Your task to perform on an android device: Open Wikipedia Image 0: 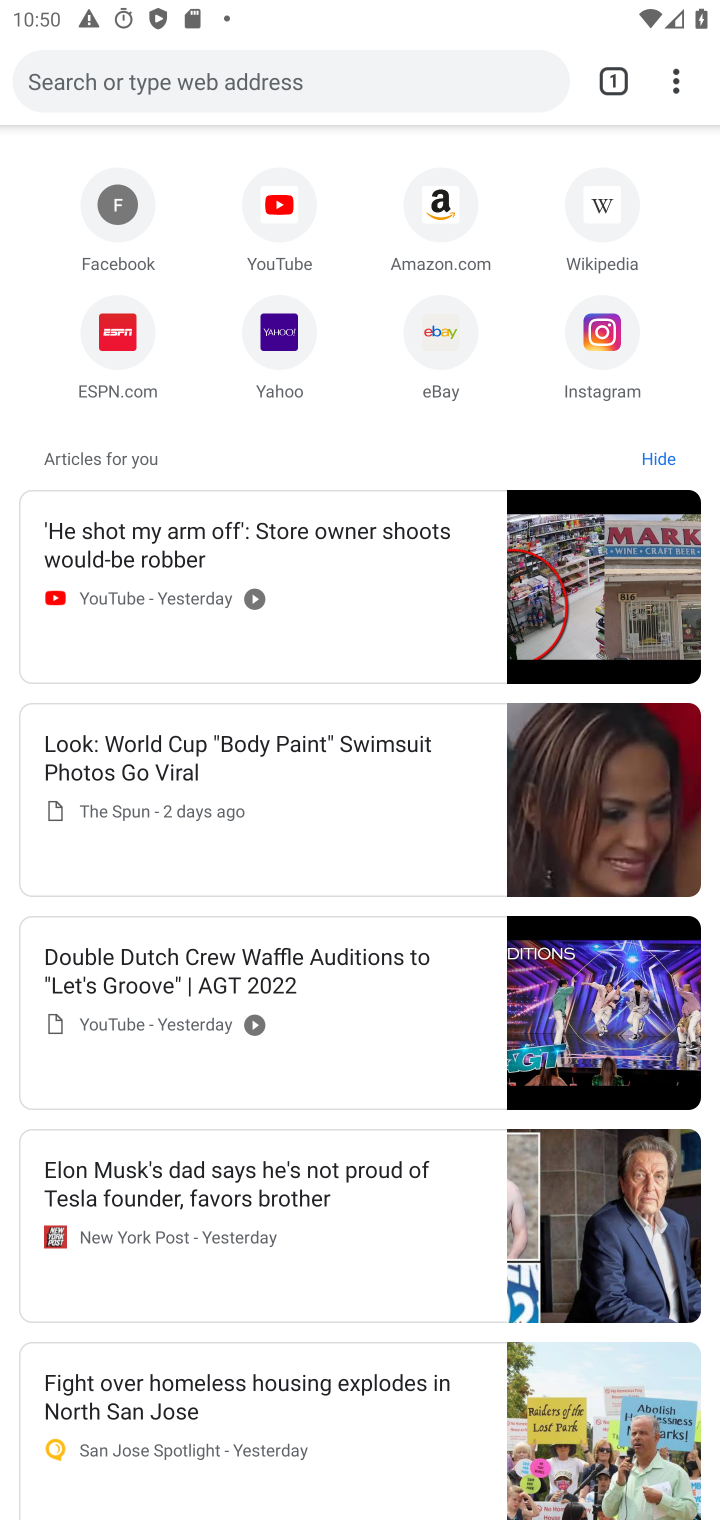
Step 0: press home button
Your task to perform on an android device: Open Wikipedia Image 1: 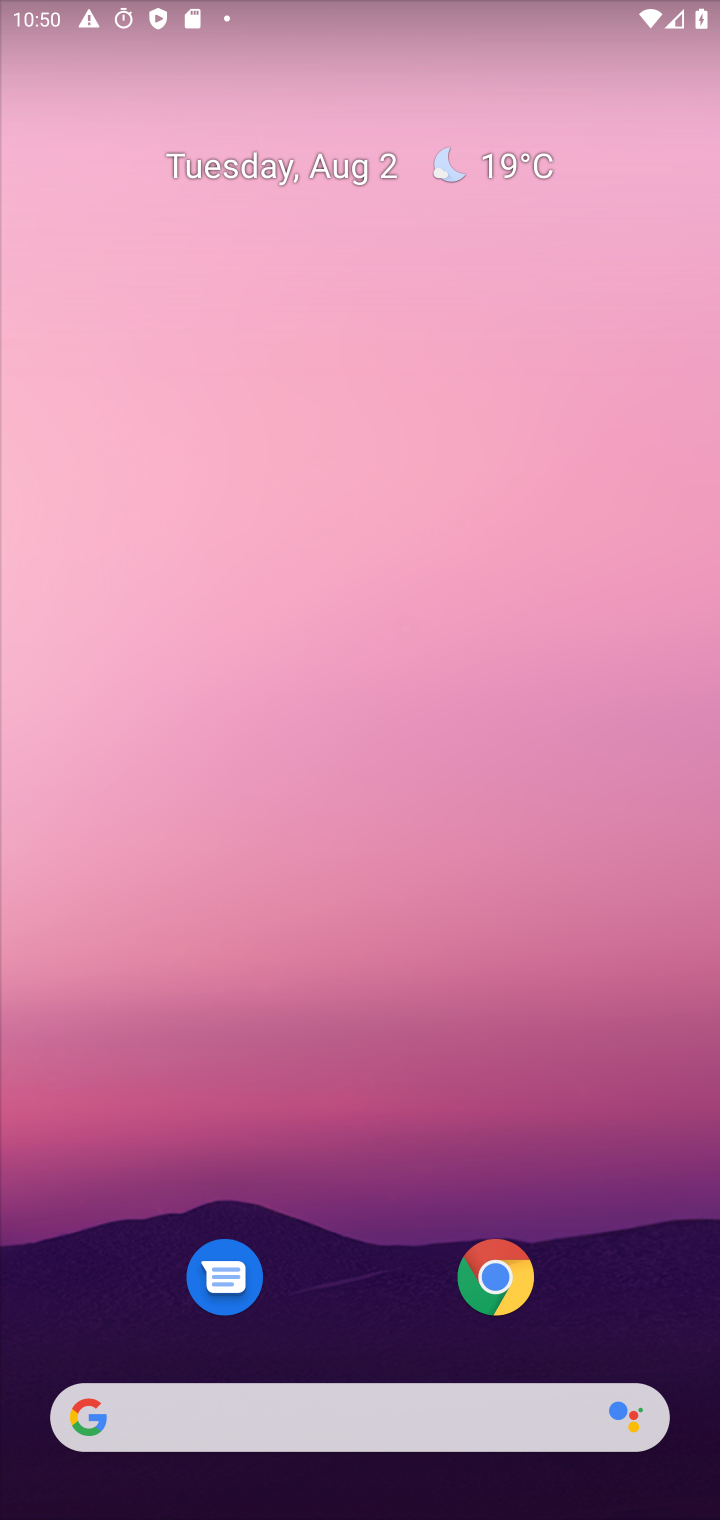
Step 1: click (79, 1420)
Your task to perform on an android device: Open Wikipedia Image 2: 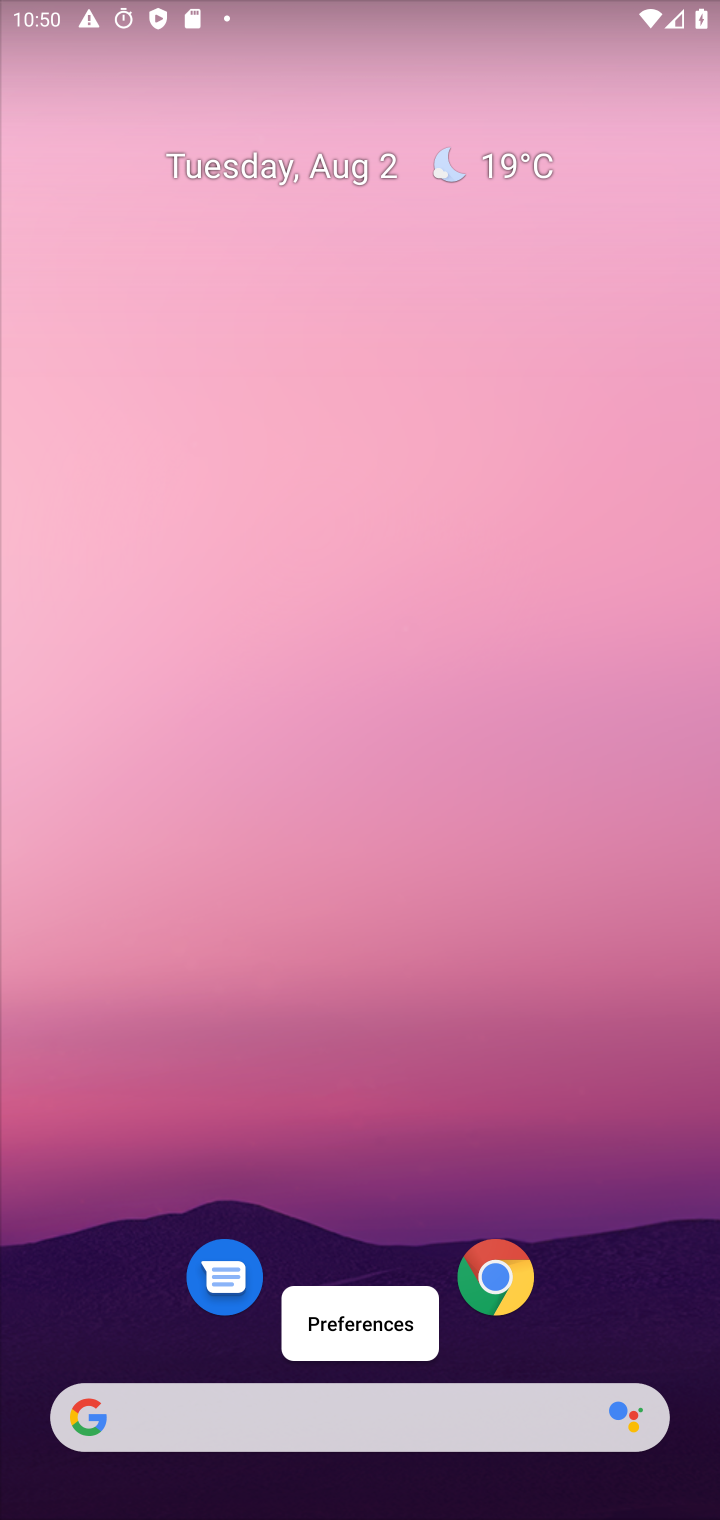
Step 2: click (94, 1412)
Your task to perform on an android device: Open Wikipedia Image 3: 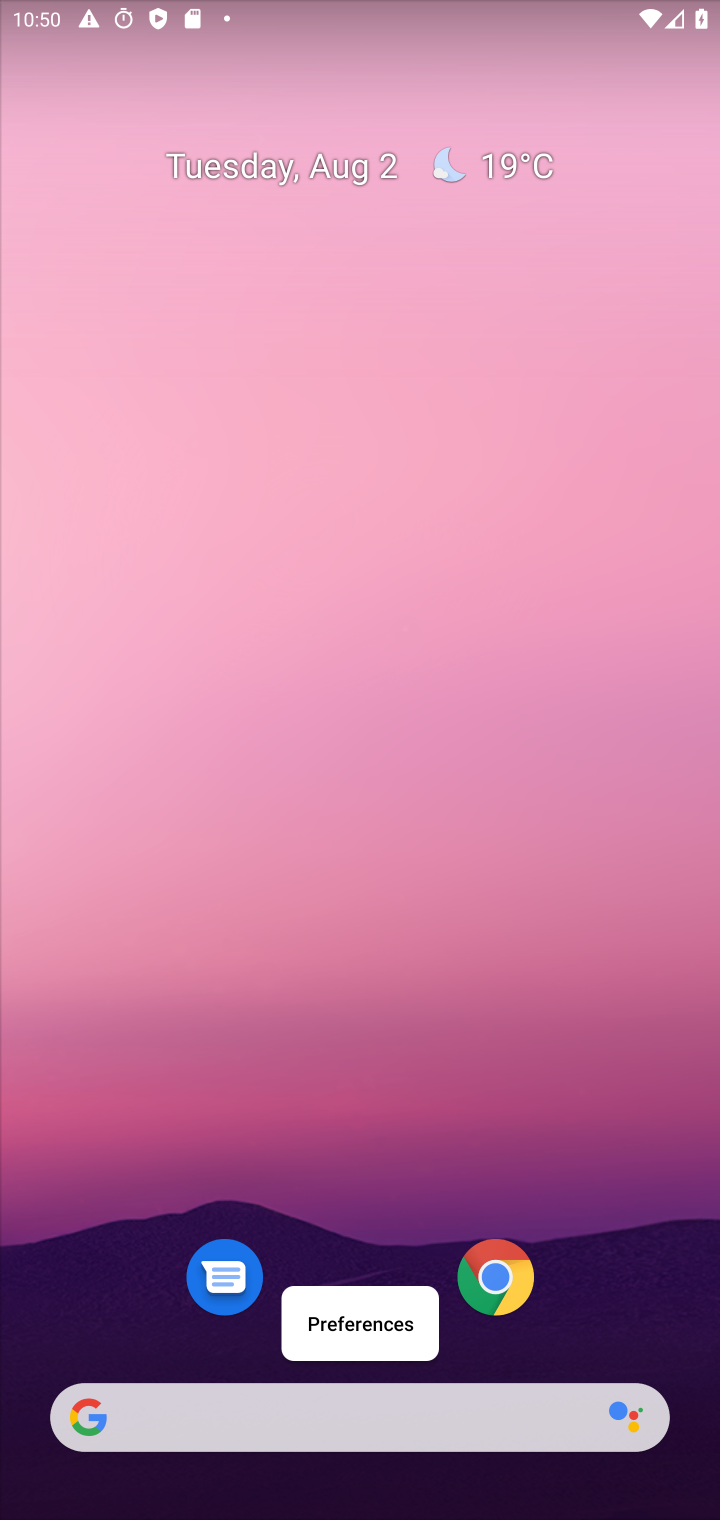
Step 3: click (101, 1423)
Your task to perform on an android device: Open Wikipedia Image 4: 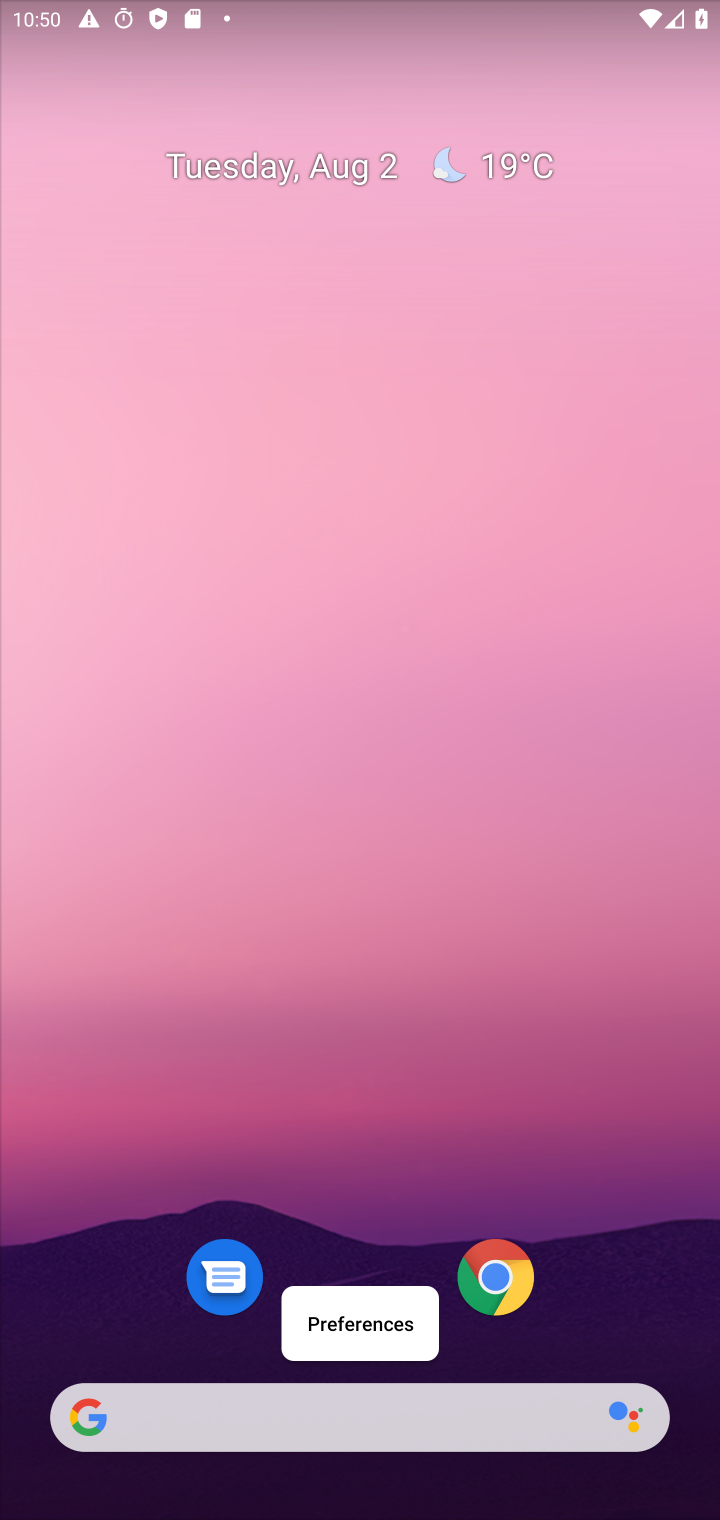
Step 4: click (66, 1398)
Your task to perform on an android device: Open Wikipedia Image 5: 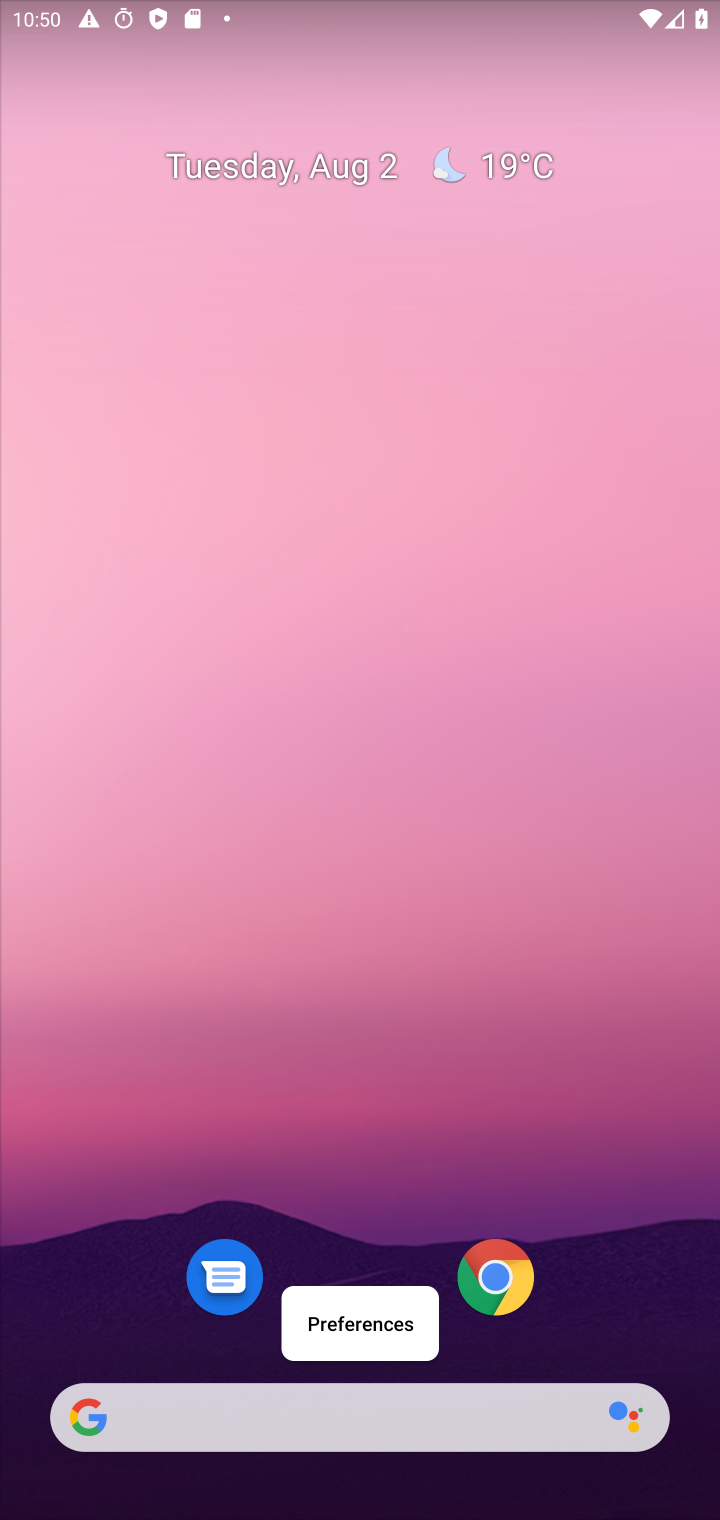
Step 5: click (78, 1405)
Your task to perform on an android device: Open Wikipedia Image 6: 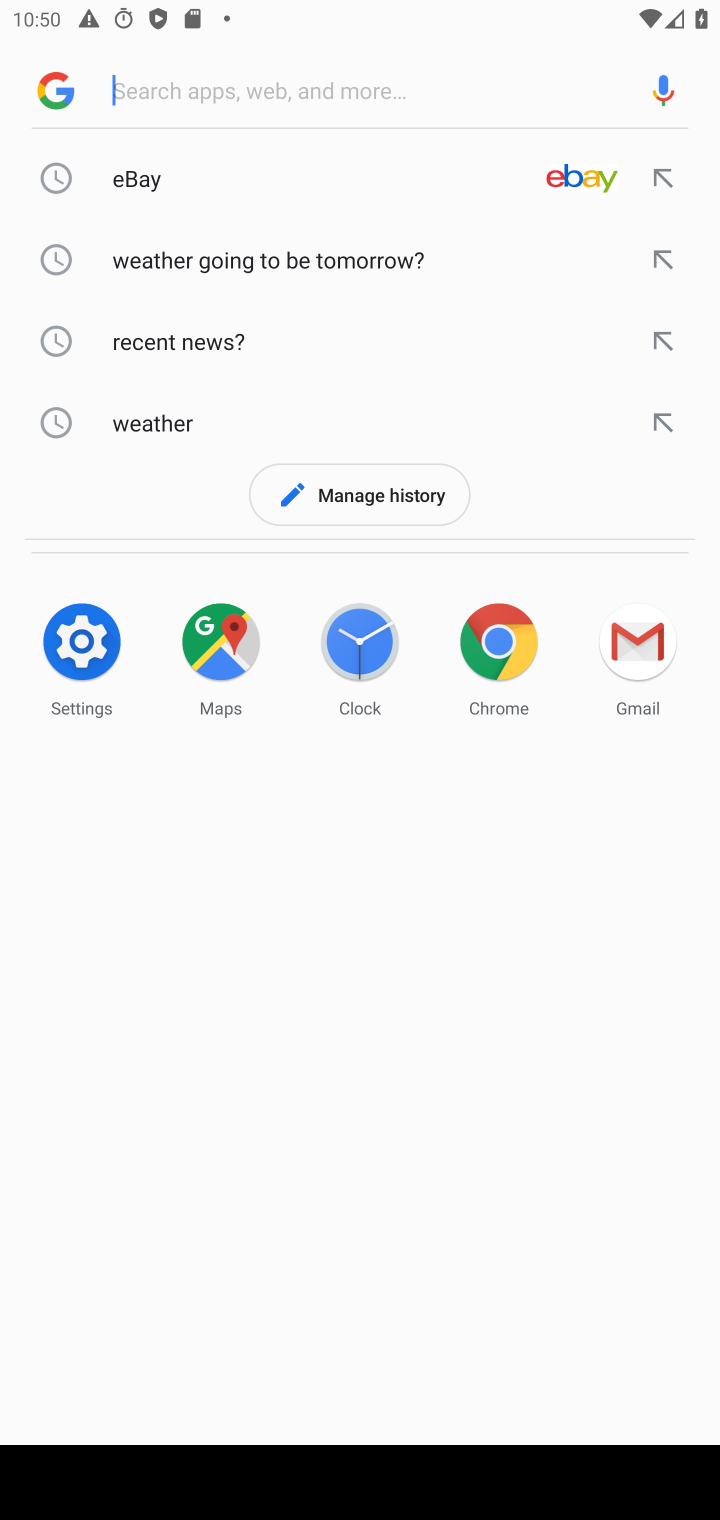
Step 6: type "Wikipedia"
Your task to perform on an android device: Open Wikipedia Image 7: 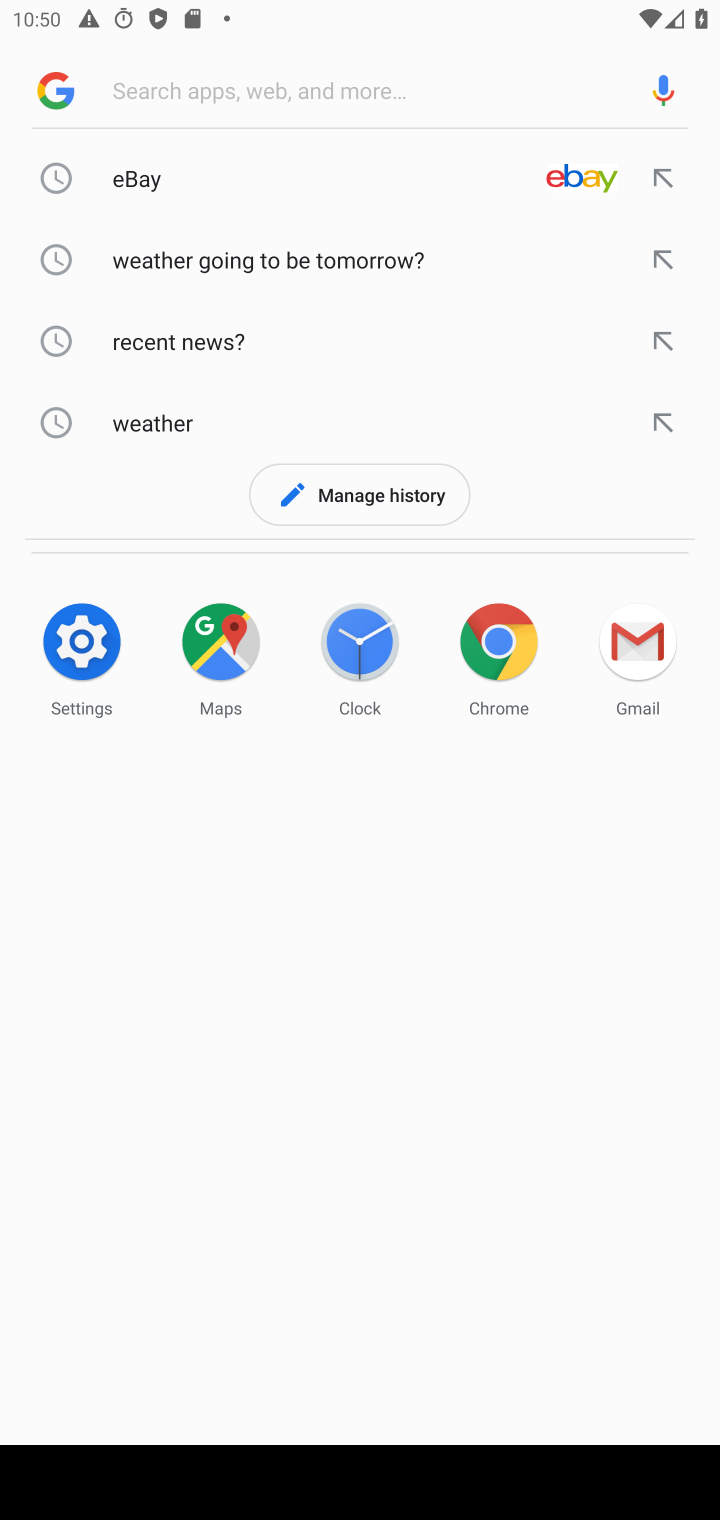
Step 7: click (195, 84)
Your task to perform on an android device: Open Wikipedia Image 8: 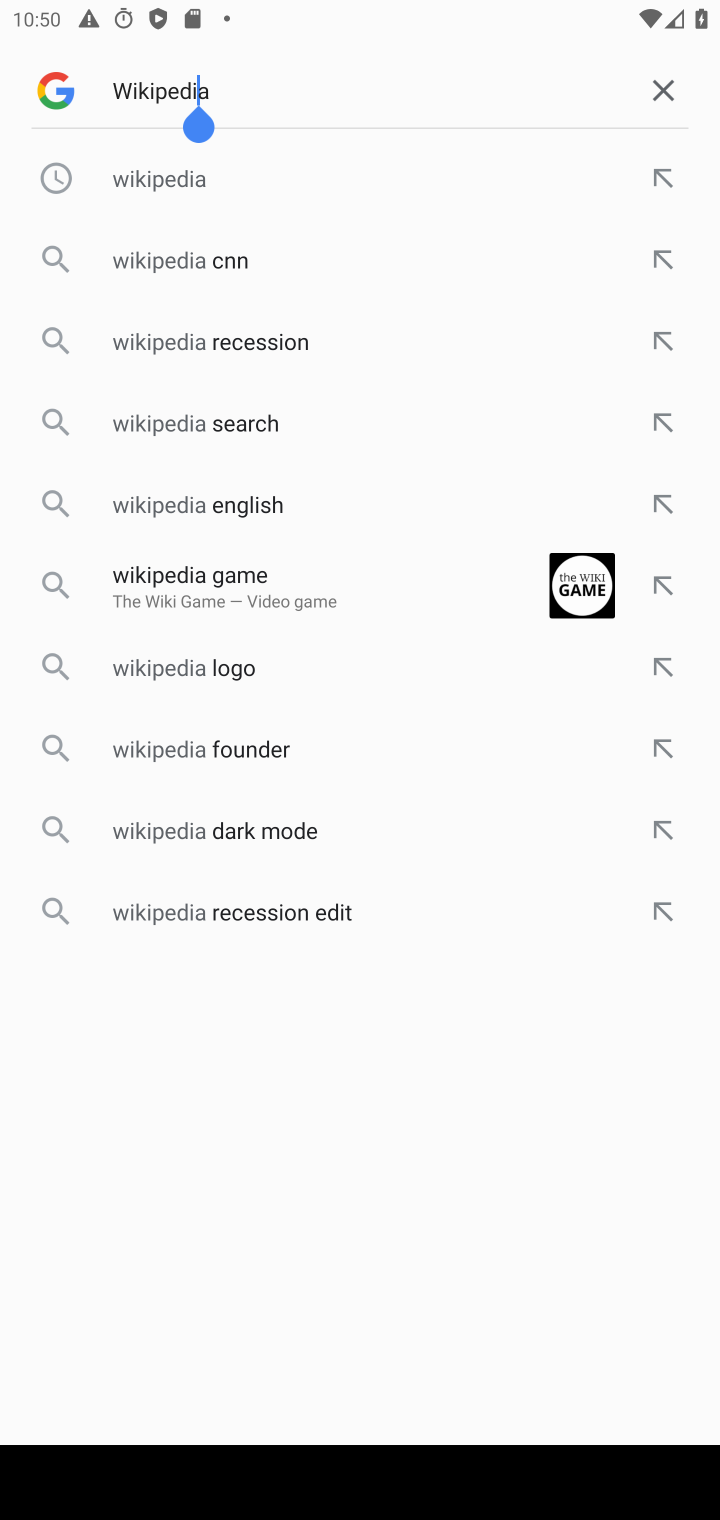
Step 8: click (118, 185)
Your task to perform on an android device: Open Wikipedia Image 9: 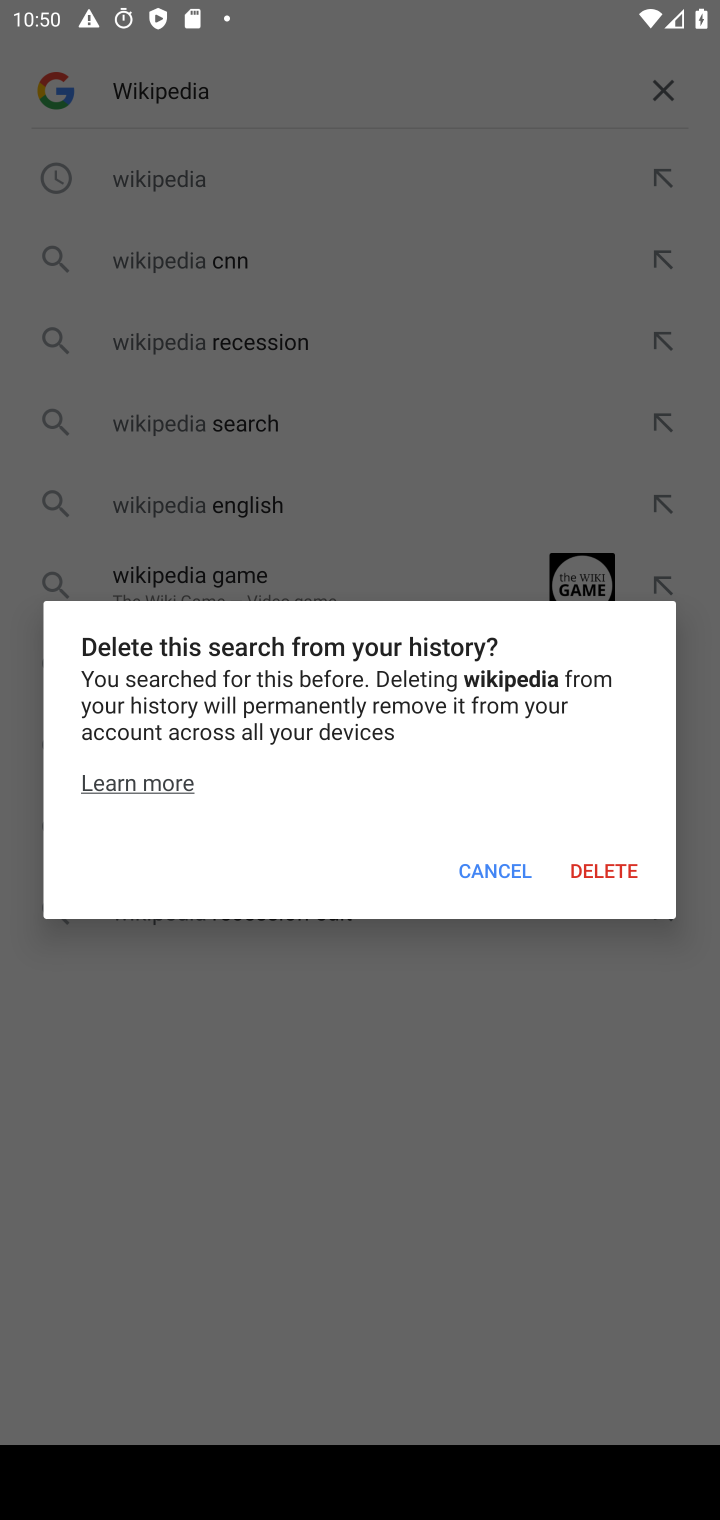
Step 9: click (507, 865)
Your task to perform on an android device: Open Wikipedia Image 10: 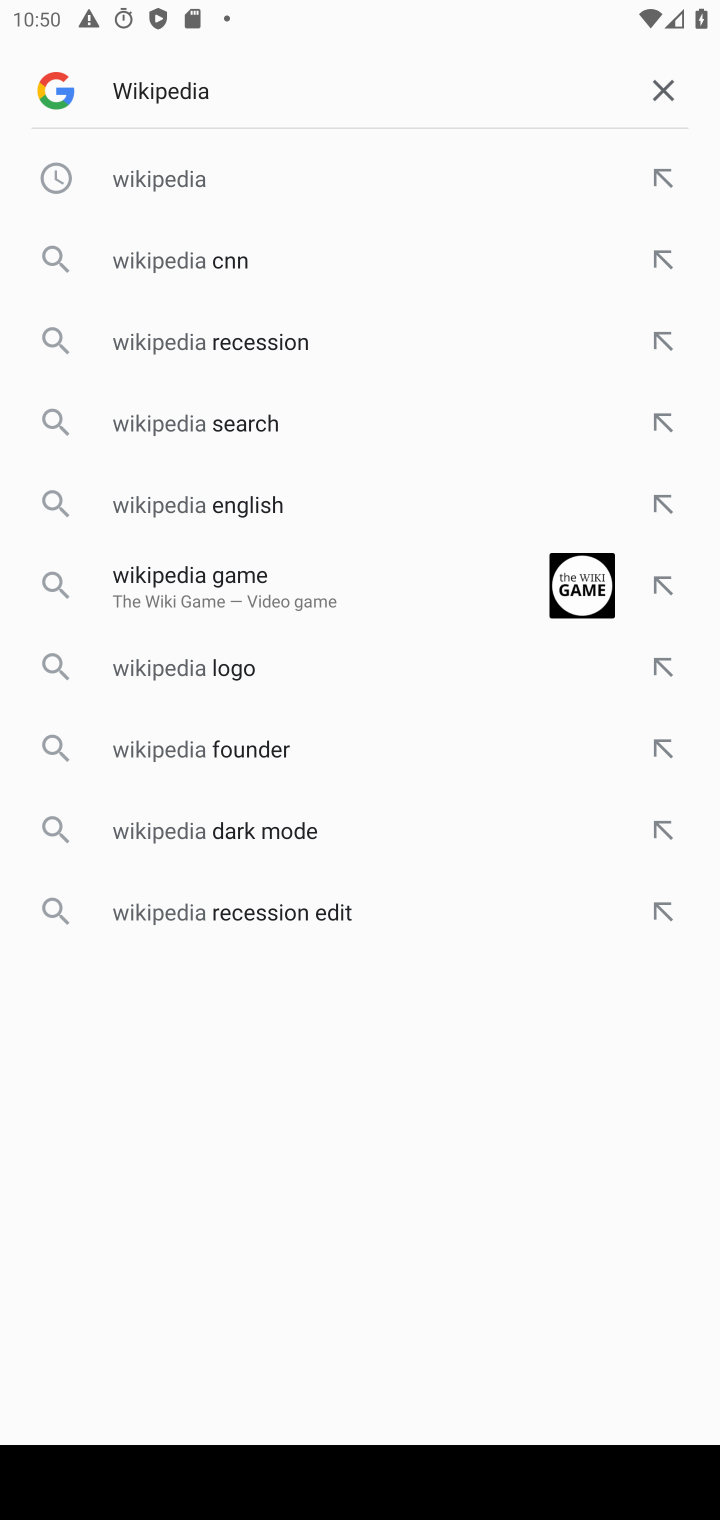
Step 10: press enter
Your task to perform on an android device: Open Wikipedia Image 11: 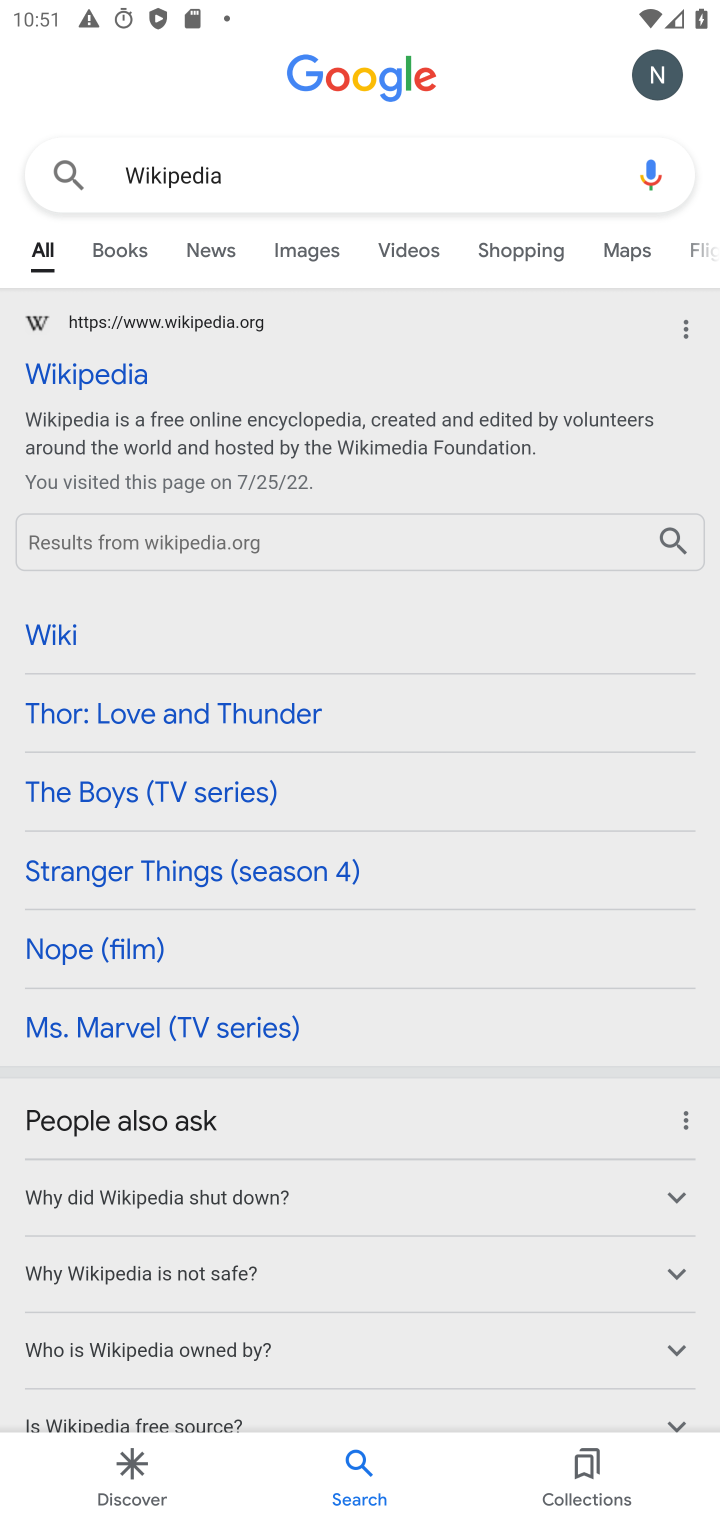
Step 11: click (78, 373)
Your task to perform on an android device: Open Wikipedia Image 12: 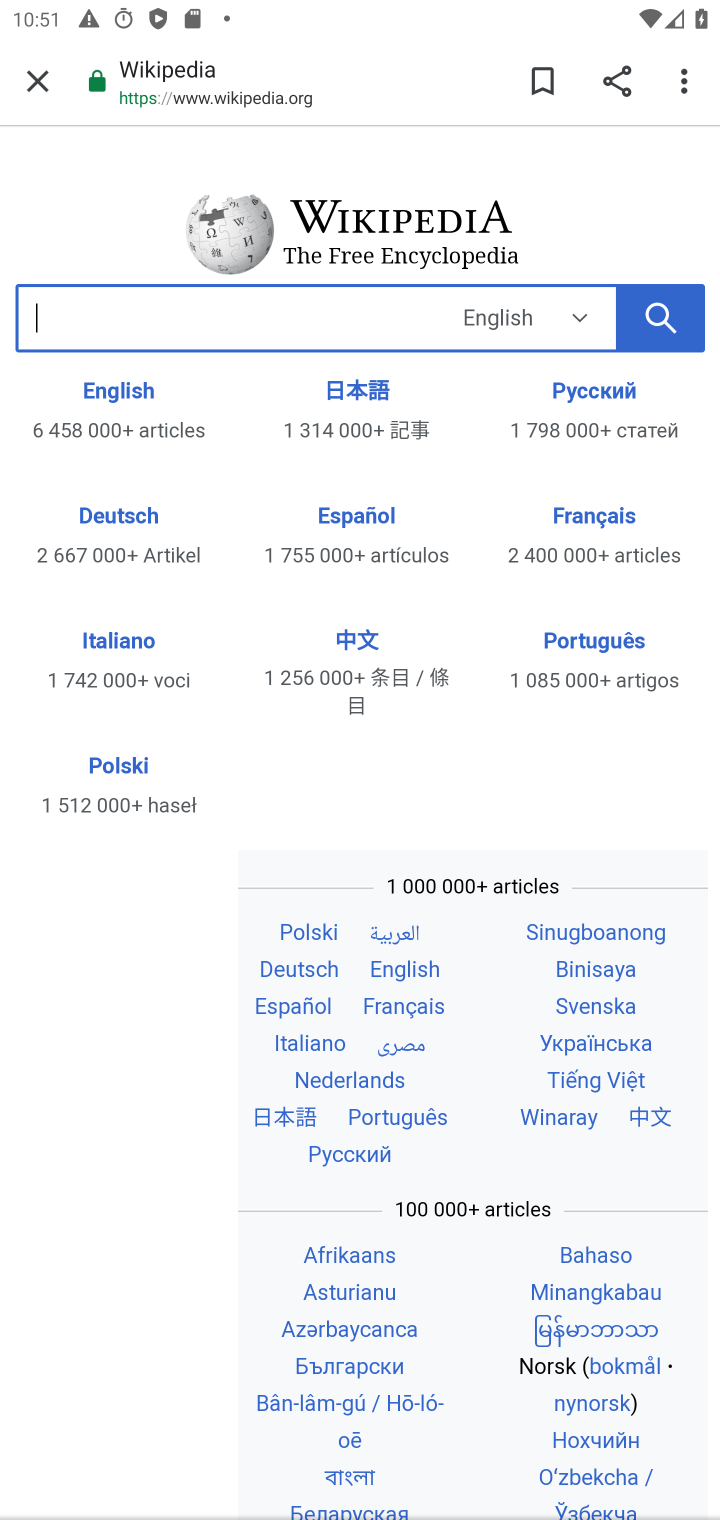
Step 12: task complete